Your task to perform on an android device: change the clock style Image 0: 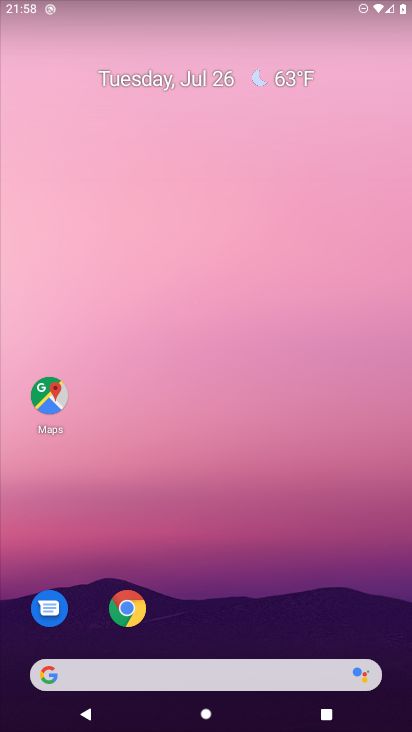
Step 0: drag from (32, 692) to (224, 129)
Your task to perform on an android device: change the clock style Image 1: 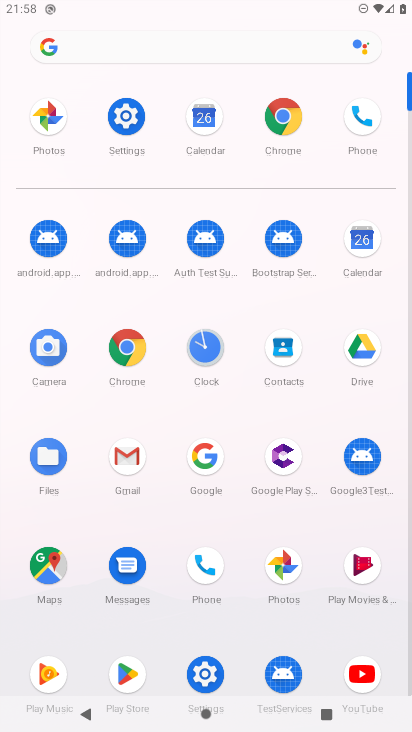
Step 1: click (206, 670)
Your task to perform on an android device: change the clock style Image 2: 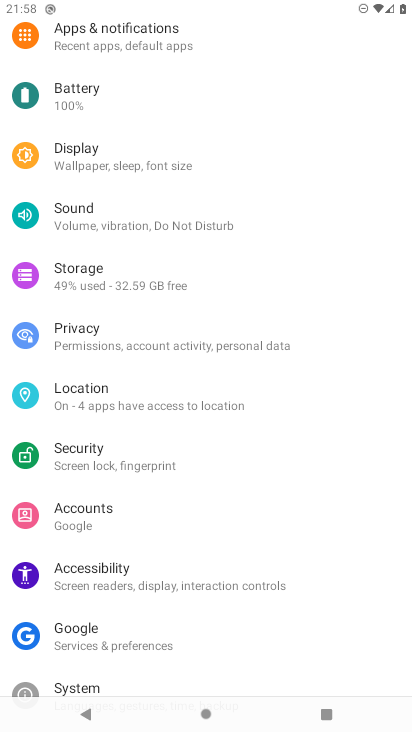
Step 2: task complete